Your task to perform on an android device: turn notification dots on Image 0: 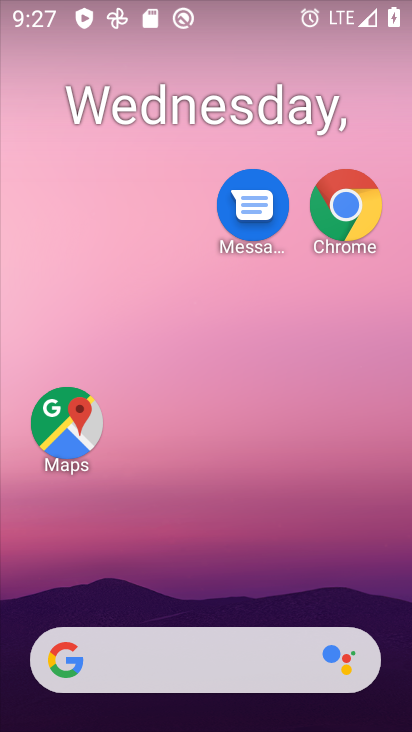
Step 0: drag from (181, 570) to (246, 2)
Your task to perform on an android device: turn notification dots on Image 1: 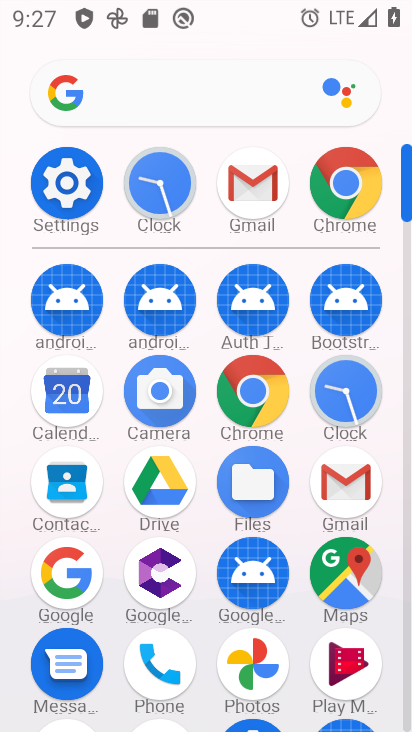
Step 1: click (60, 183)
Your task to perform on an android device: turn notification dots on Image 2: 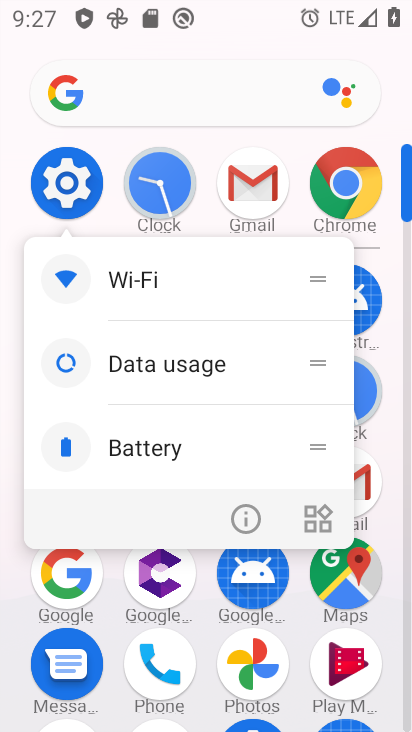
Step 2: click (264, 516)
Your task to perform on an android device: turn notification dots on Image 3: 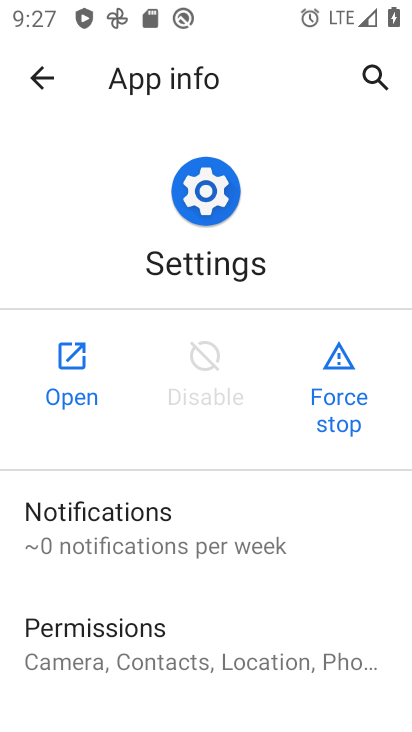
Step 3: click (83, 381)
Your task to perform on an android device: turn notification dots on Image 4: 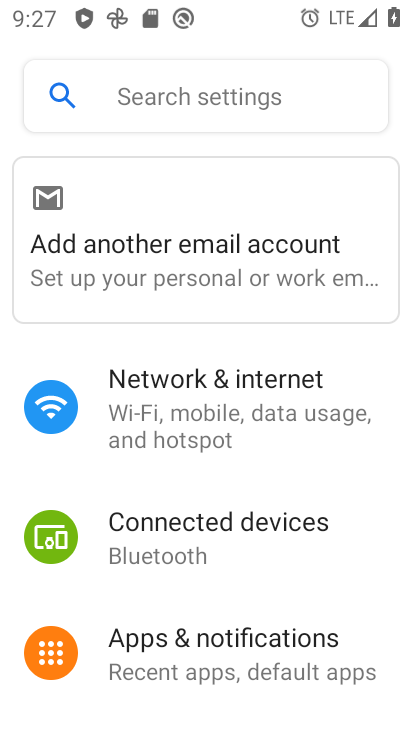
Step 4: click (207, 631)
Your task to perform on an android device: turn notification dots on Image 5: 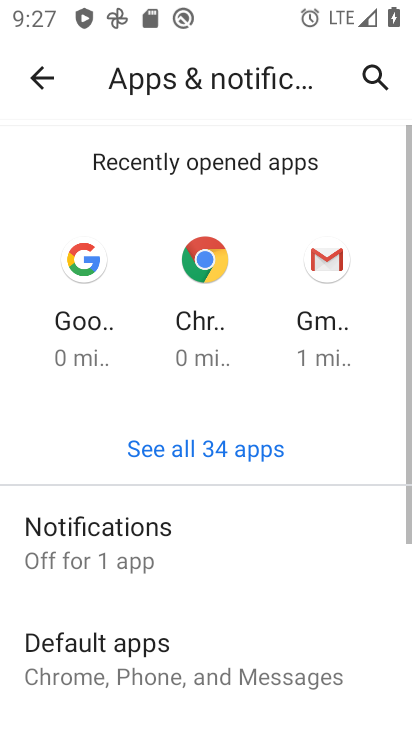
Step 5: drag from (225, 617) to (257, 247)
Your task to perform on an android device: turn notification dots on Image 6: 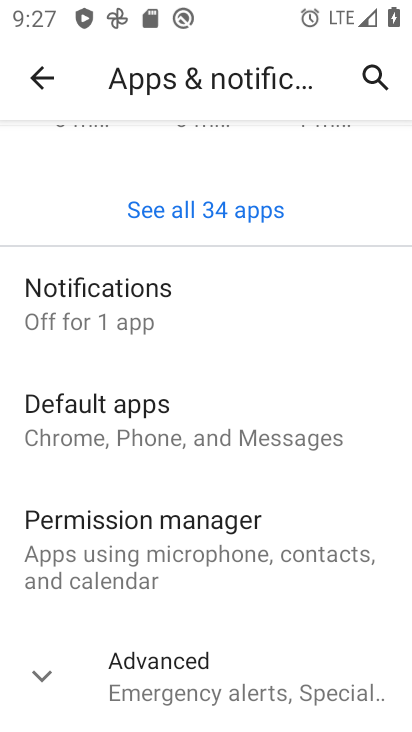
Step 6: click (171, 286)
Your task to perform on an android device: turn notification dots on Image 7: 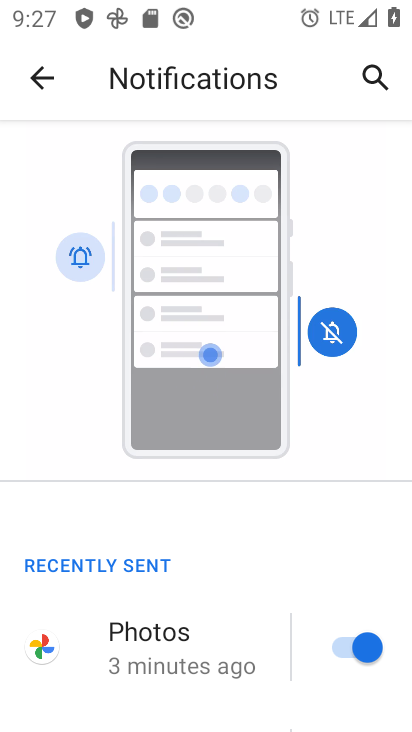
Step 7: drag from (240, 604) to (280, 125)
Your task to perform on an android device: turn notification dots on Image 8: 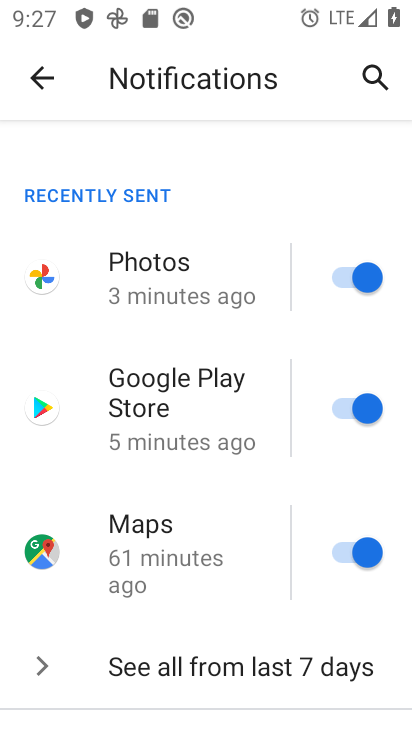
Step 8: drag from (222, 603) to (246, 267)
Your task to perform on an android device: turn notification dots on Image 9: 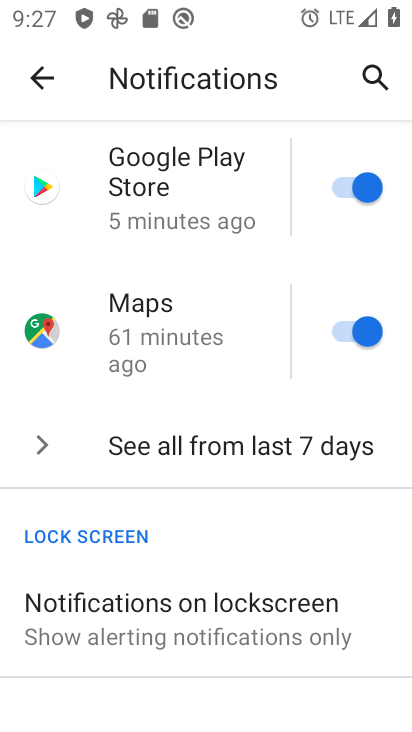
Step 9: drag from (237, 616) to (226, 296)
Your task to perform on an android device: turn notification dots on Image 10: 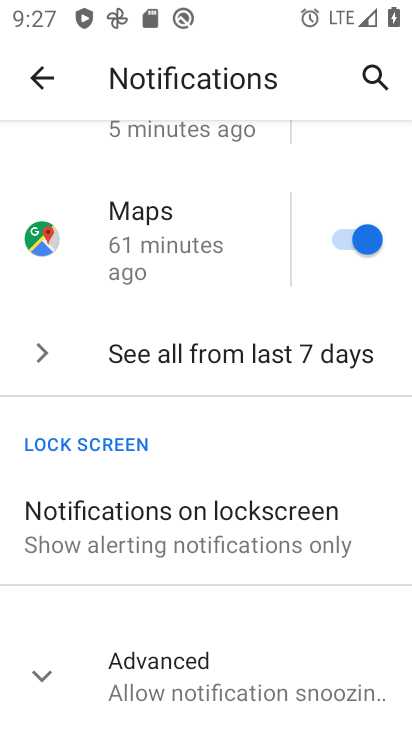
Step 10: click (180, 660)
Your task to perform on an android device: turn notification dots on Image 11: 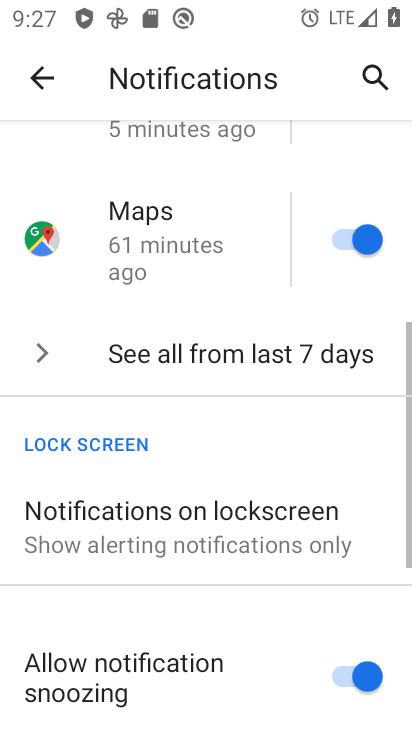
Step 11: drag from (178, 660) to (240, 51)
Your task to perform on an android device: turn notification dots on Image 12: 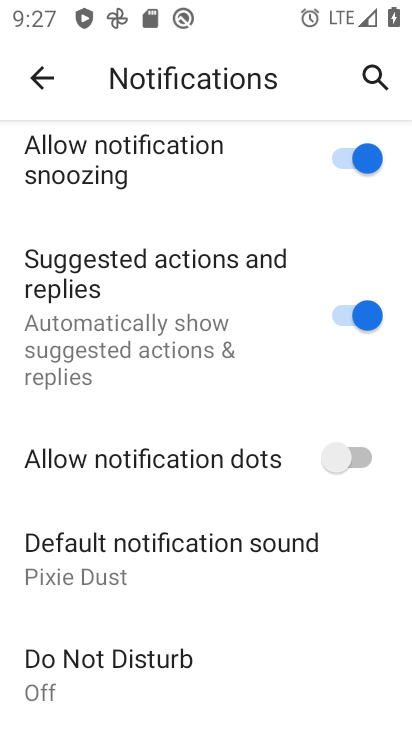
Step 12: click (318, 460)
Your task to perform on an android device: turn notification dots on Image 13: 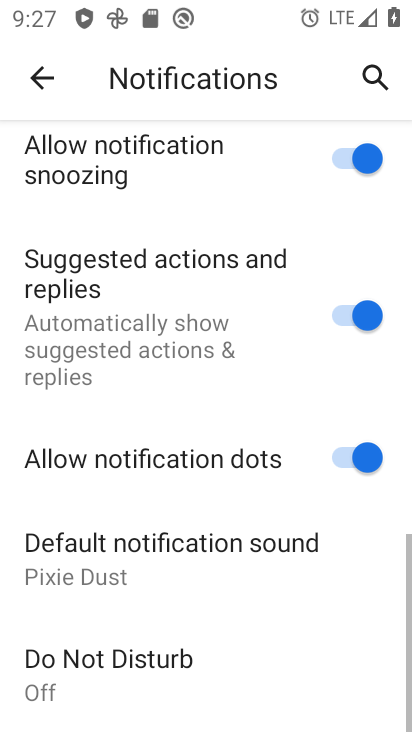
Step 13: task complete